Your task to perform on an android device: Open my contact list Image 0: 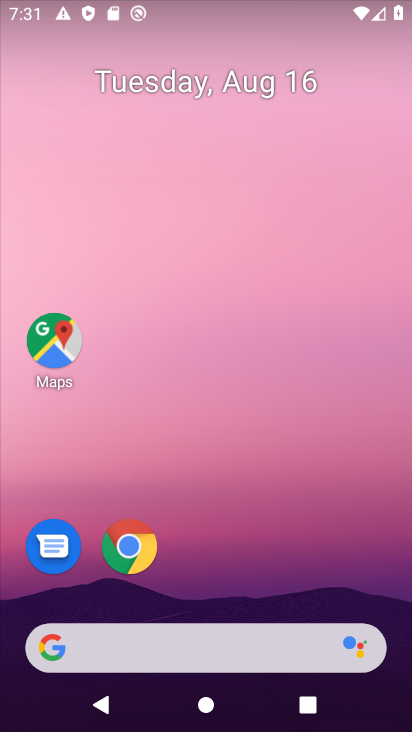
Step 0: drag from (256, 578) to (214, 0)
Your task to perform on an android device: Open my contact list Image 1: 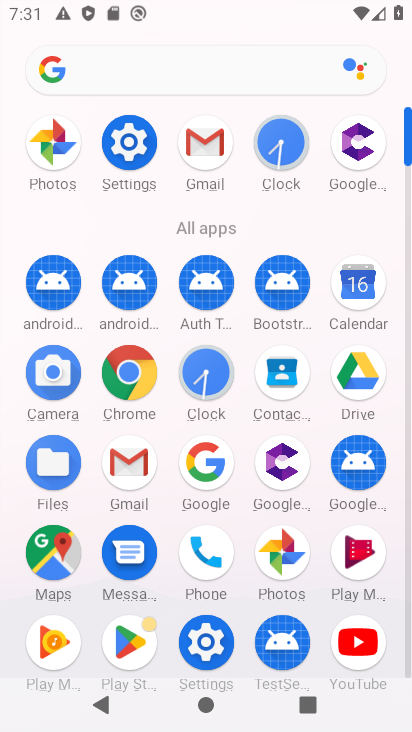
Step 1: click (279, 370)
Your task to perform on an android device: Open my contact list Image 2: 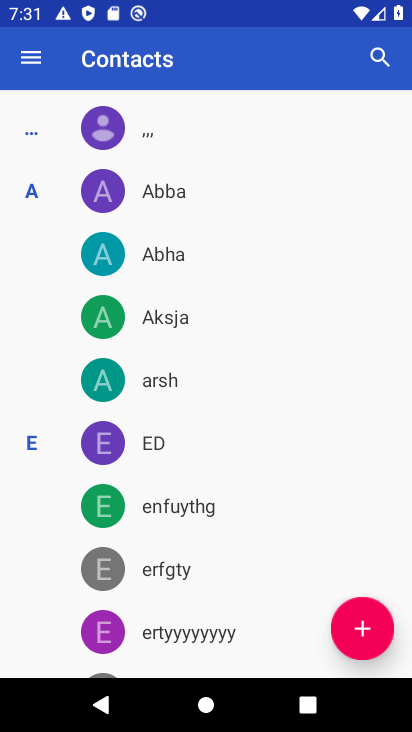
Step 2: task complete